Your task to perform on an android device: Search for vegetarian restaurants on Maps Image 0: 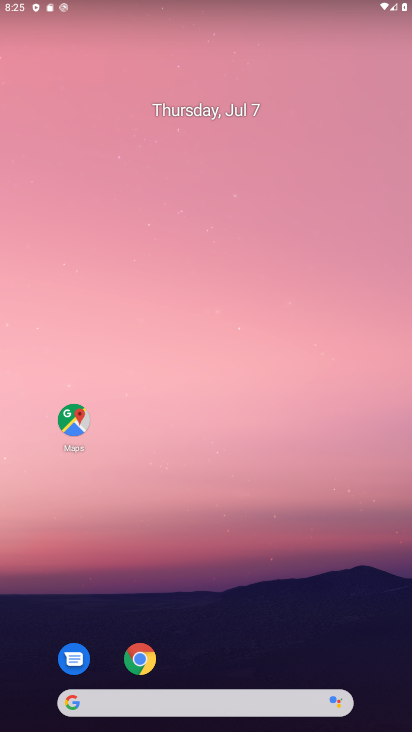
Step 0: click (80, 412)
Your task to perform on an android device: Search for vegetarian restaurants on Maps Image 1: 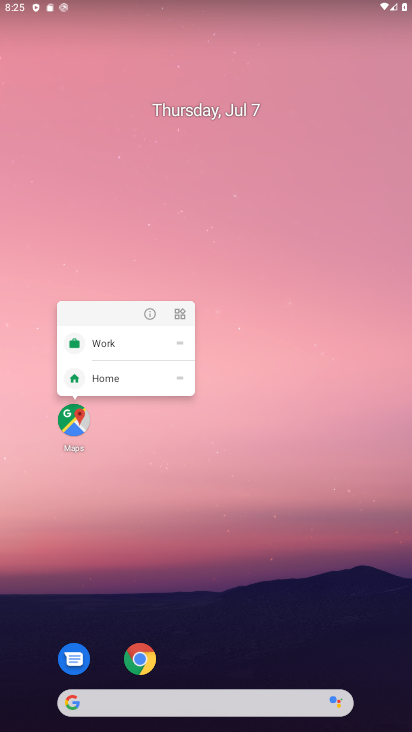
Step 1: click (75, 429)
Your task to perform on an android device: Search for vegetarian restaurants on Maps Image 2: 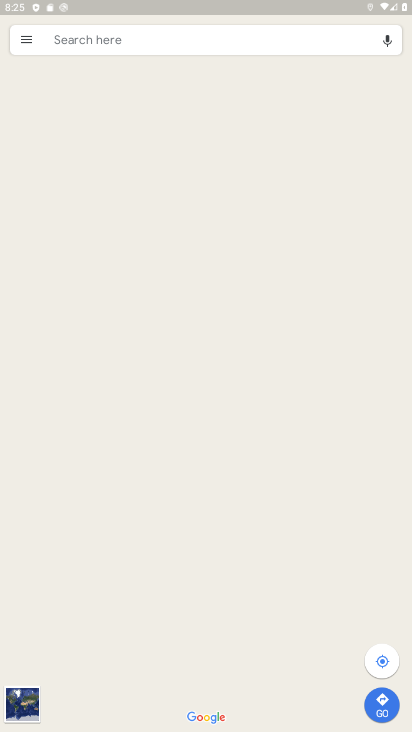
Step 2: click (151, 41)
Your task to perform on an android device: Search for vegetarian restaurants on Maps Image 3: 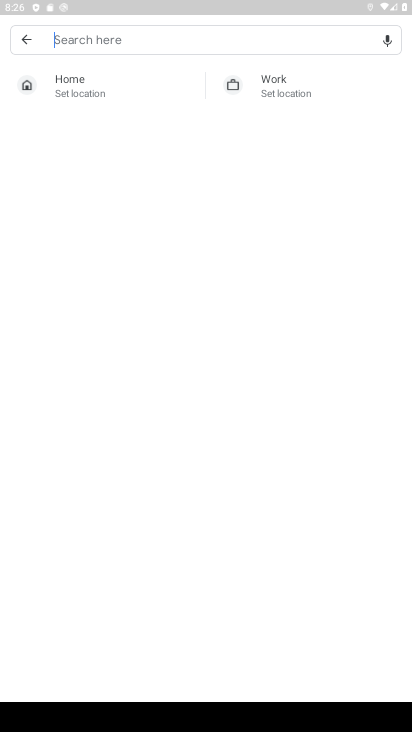
Step 3: type "vegetarian restaurants"
Your task to perform on an android device: Search for vegetarian restaurants on Maps Image 4: 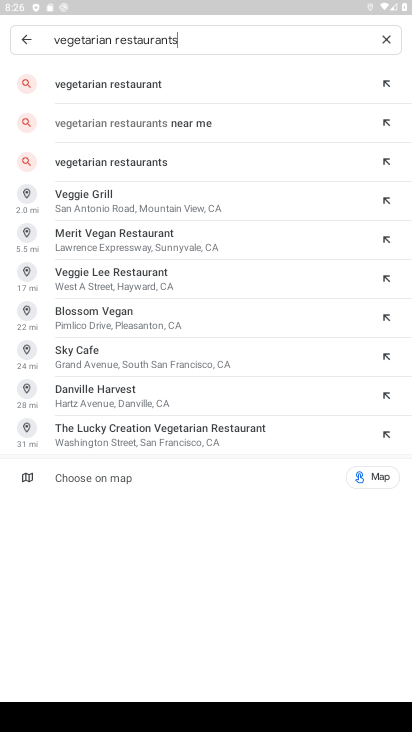
Step 4: click (135, 81)
Your task to perform on an android device: Search for vegetarian restaurants on Maps Image 5: 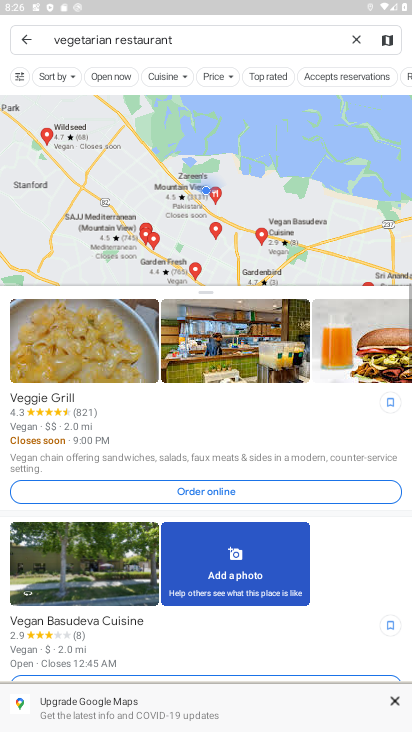
Step 5: task complete